Your task to perform on an android device: Clear the shopping cart on bestbuy.com. Image 0: 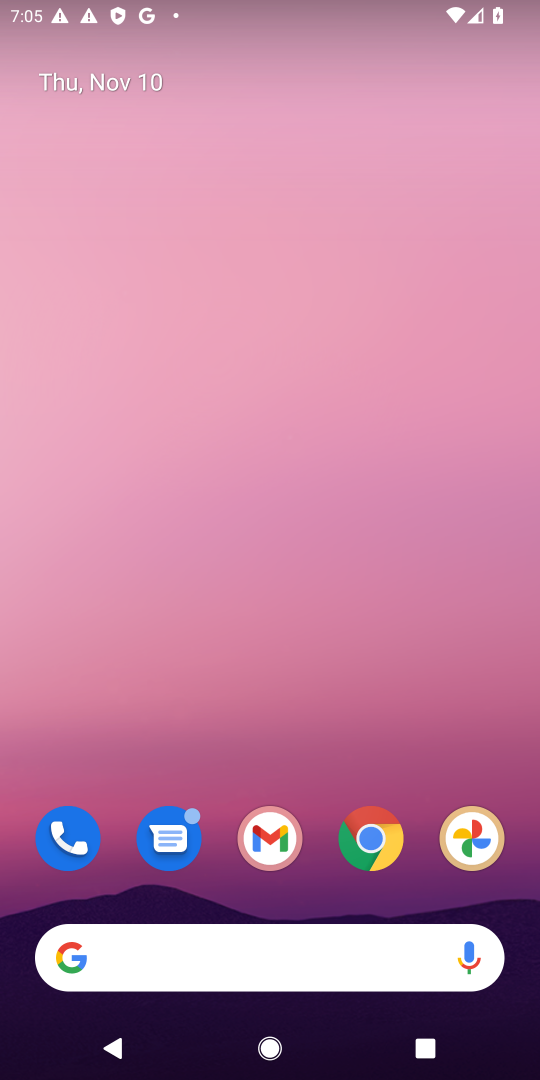
Step 0: drag from (329, 897) to (345, 131)
Your task to perform on an android device: Clear the shopping cart on bestbuy.com. Image 1: 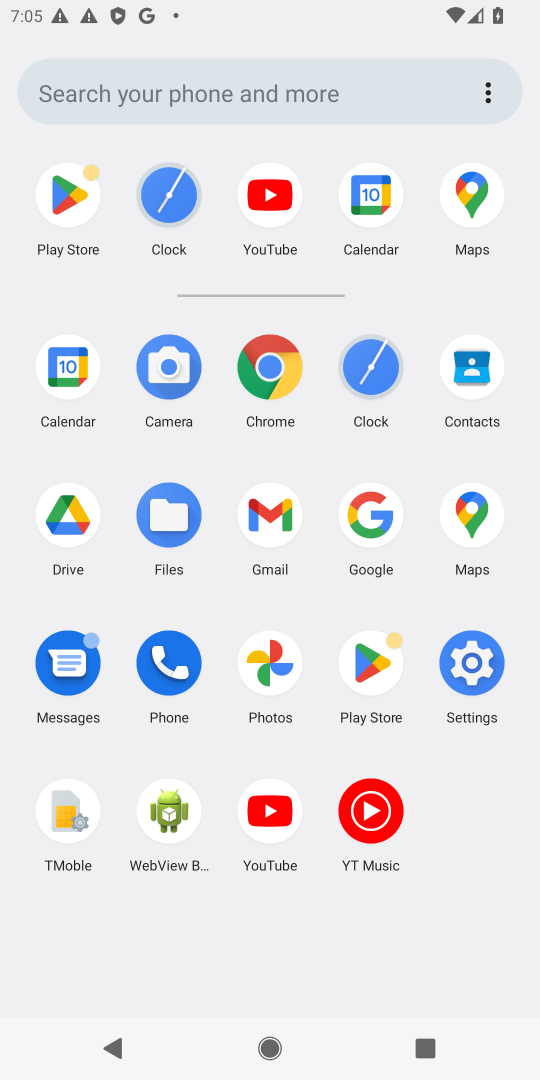
Step 1: click (272, 371)
Your task to perform on an android device: Clear the shopping cart on bestbuy.com. Image 2: 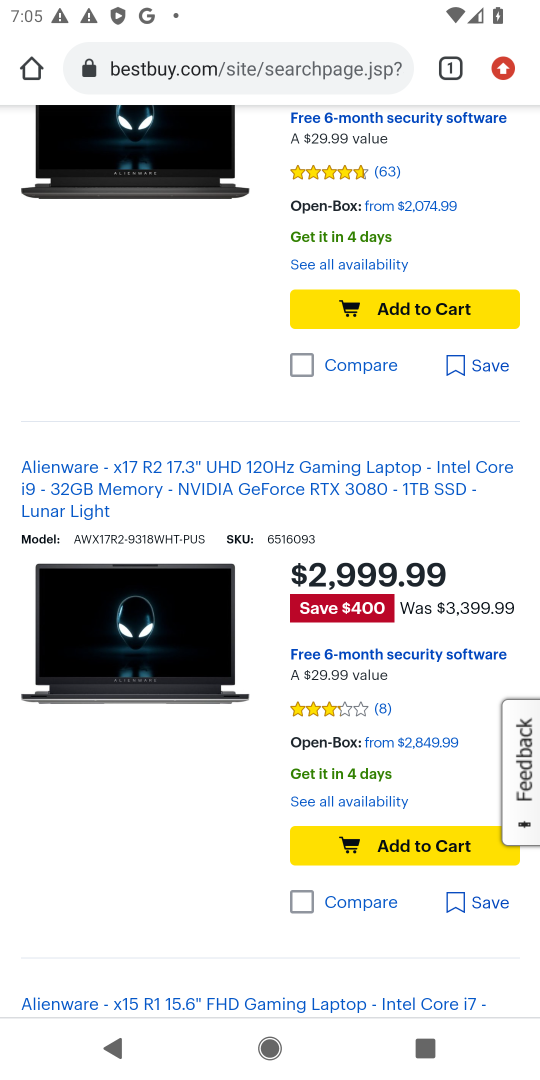
Step 2: click (265, 73)
Your task to perform on an android device: Clear the shopping cart on bestbuy.com. Image 3: 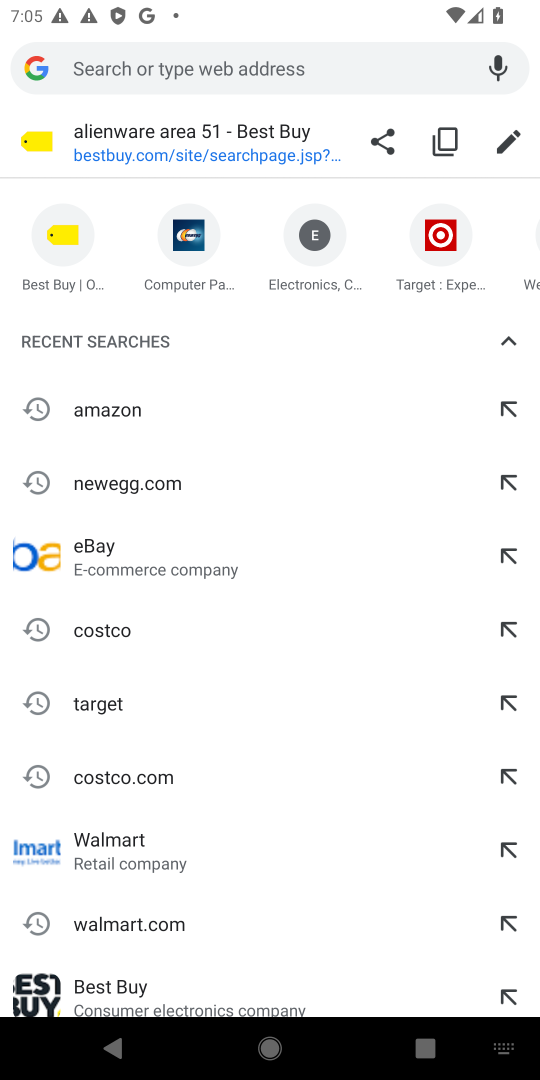
Step 3: type "bestbuy.com"
Your task to perform on an android device: Clear the shopping cart on bestbuy.com. Image 4: 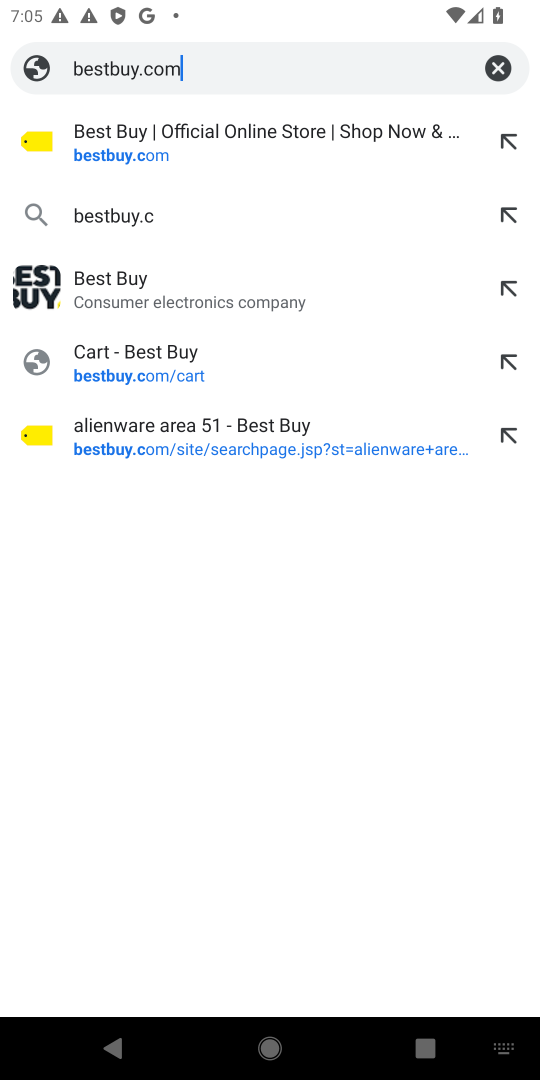
Step 4: press enter
Your task to perform on an android device: Clear the shopping cart on bestbuy.com. Image 5: 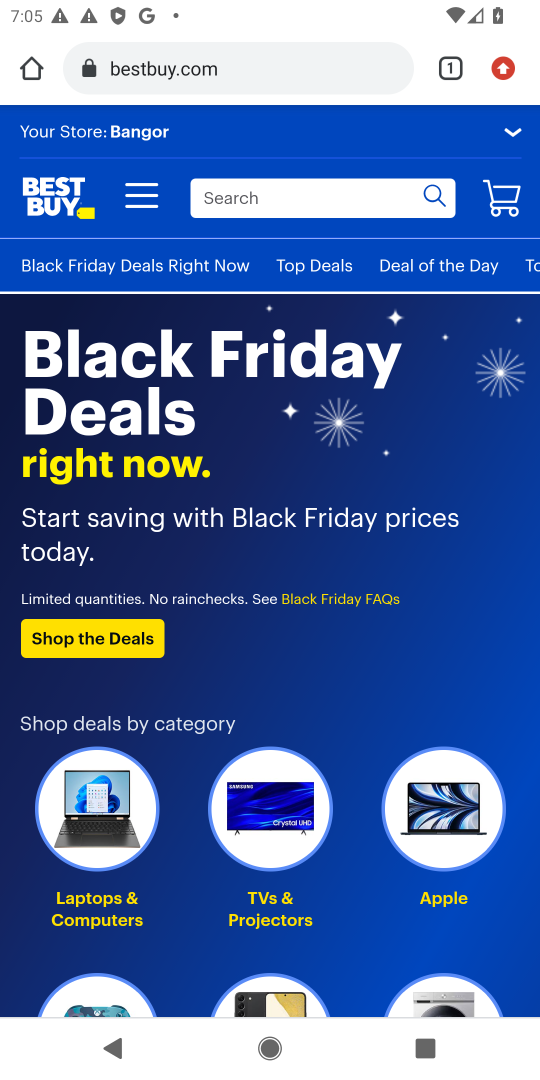
Step 5: click (509, 214)
Your task to perform on an android device: Clear the shopping cart on bestbuy.com. Image 6: 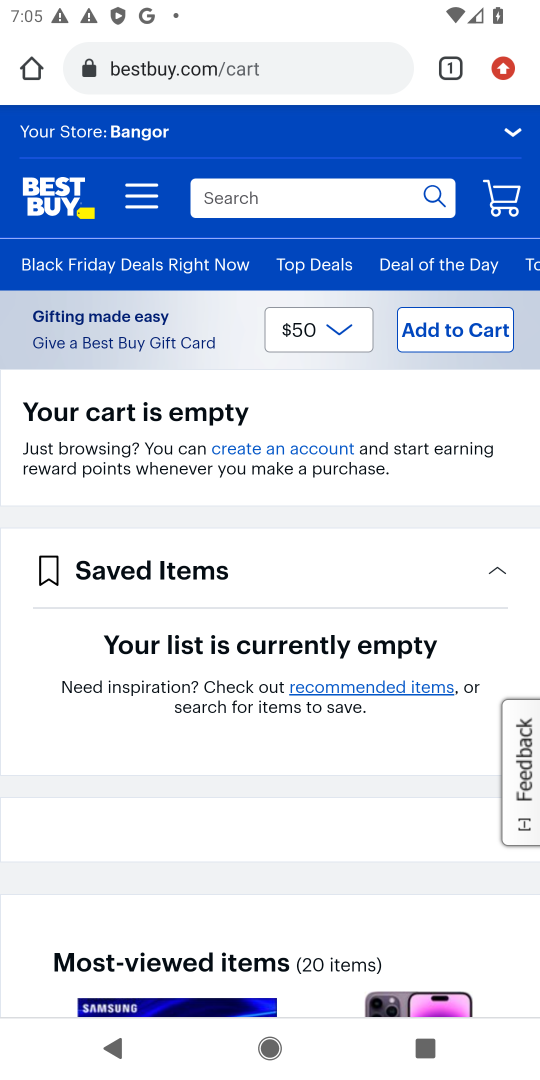
Step 6: task complete